Your task to perform on an android device: Open the calendar and show me this week's events Image 0: 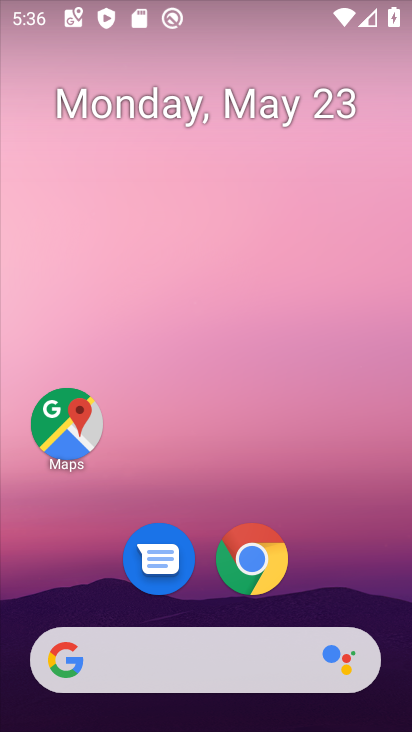
Step 0: drag from (261, 642) to (277, 23)
Your task to perform on an android device: Open the calendar and show me this week's events Image 1: 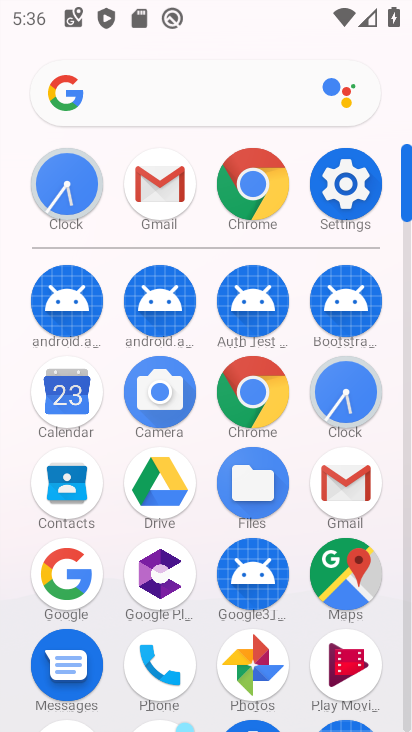
Step 1: click (73, 379)
Your task to perform on an android device: Open the calendar and show me this week's events Image 2: 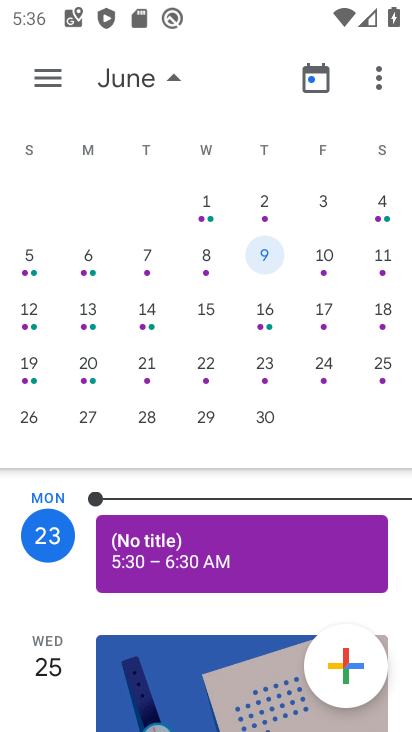
Step 2: click (394, 256)
Your task to perform on an android device: Open the calendar and show me this week's events Image 3: 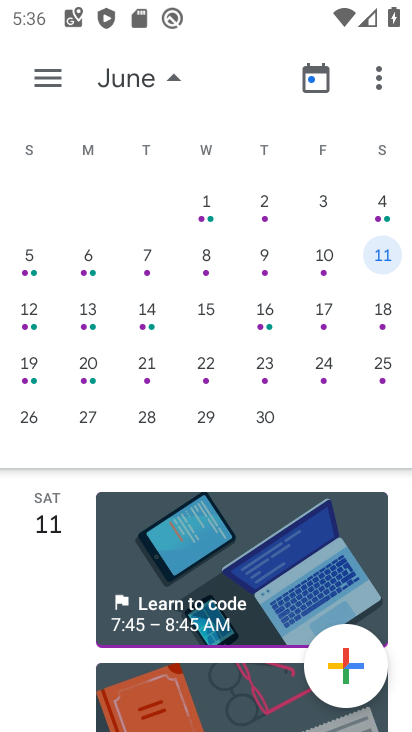
Step 3: task complete